Your task to perform on an android device: Open Youtube and go to the subscriptions tab Image 0: 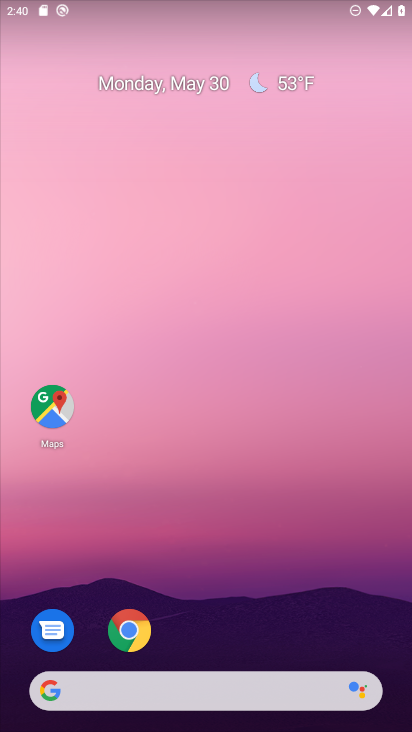
Step 0: drag from (276, 689) to (333, 140)
Your task to perform on an android device: Open Youtube and go to the subscriptions tab Image 1: 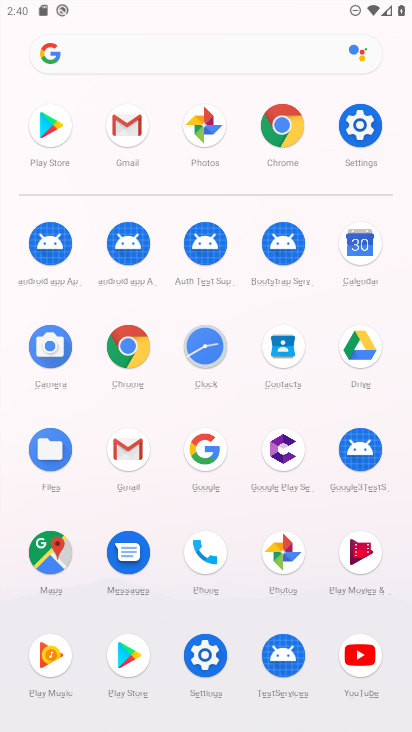
Step 1: click (371, 661)
Your task to perform on an android device: Open Youtube and go to the subscriptions tab Image 2: 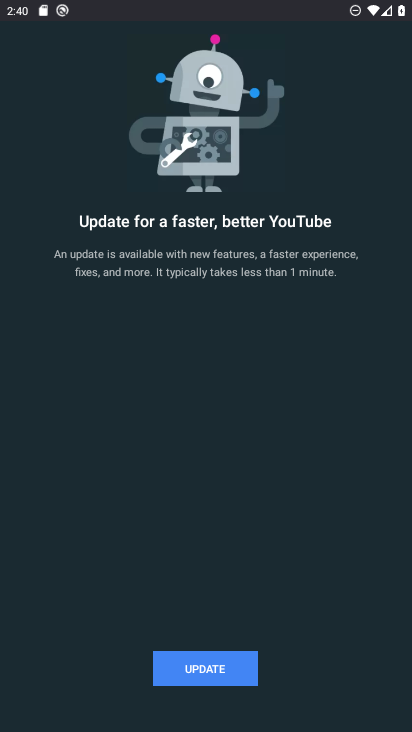
Step 2: click (227, 667)
Your task to perform on an android device: Open Youtube and go to the subscriptions tab Image 3: 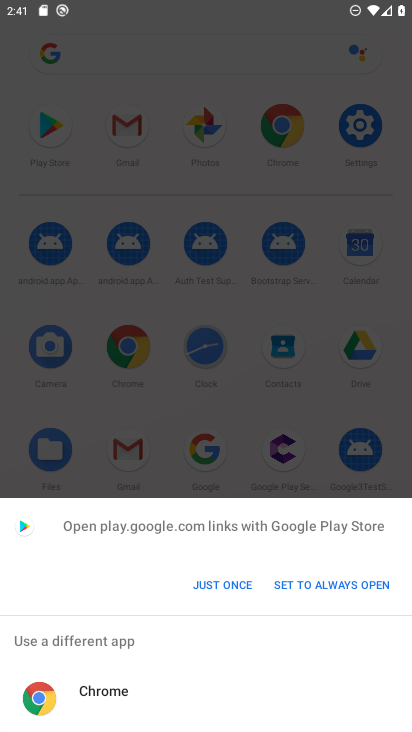
Step 3: click (205, 587)
Your task to perform on an android device: Open Youtube and go to the subscriptions tab Image 4: 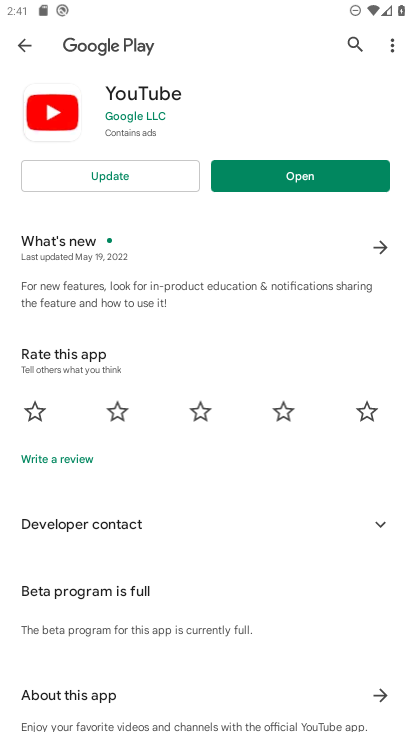
Step 4: click (114, 176)
Your task to perform on an android device: Open Youtube and go to the subscriptions tab Image 5: 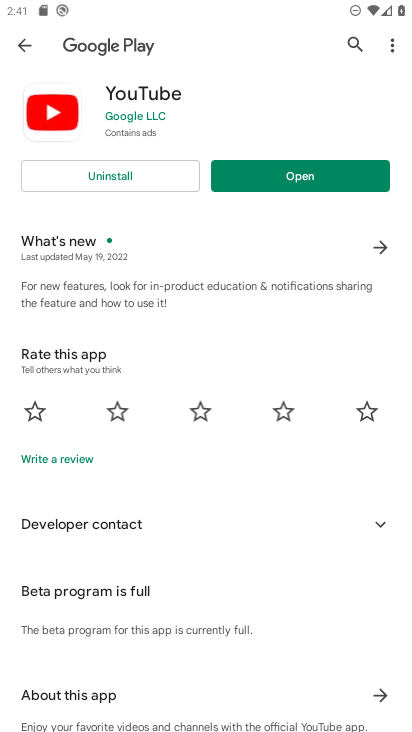
Step 5: click (234, 174)
Your task to perform on an android device: Open Youtube and go to the subscriptions tab Image 6: 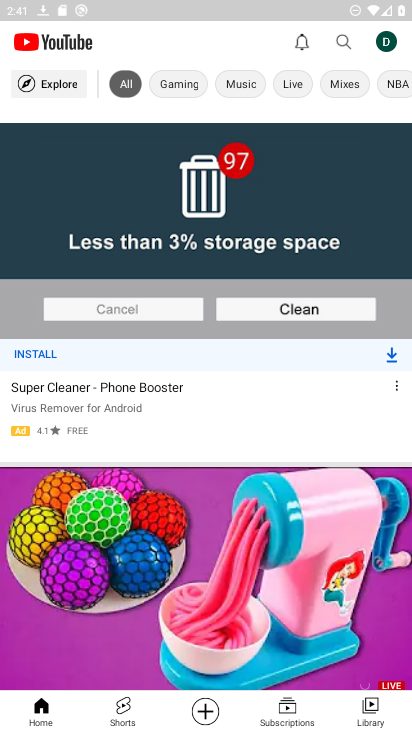
Step 6: click (287, 711)
Your task to perform on an android device: Open Youtube and go to the subscriptions tab Image 7: 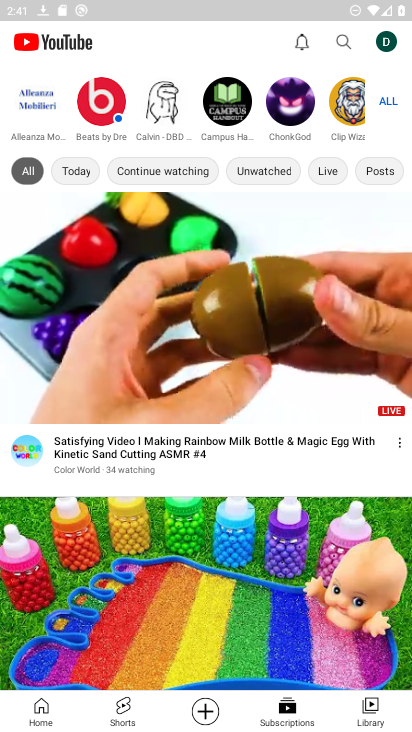
Step 7: task complete